Your task to perform on an android device: Open settings on Google Maps Image 0: 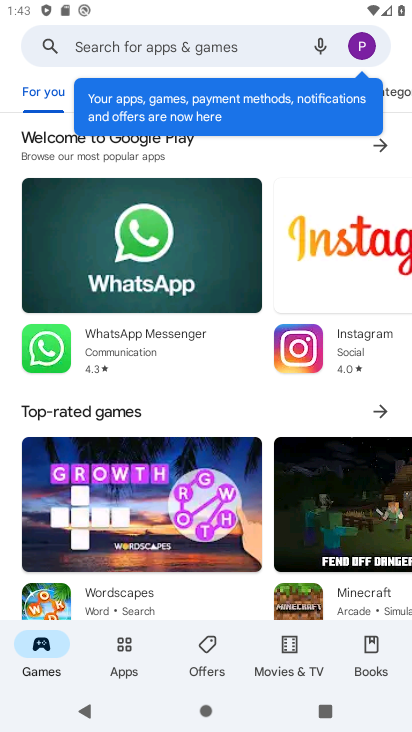
Step 0: press home button
Your task to perform on an android device: Open settings on Google Maps Image 1: 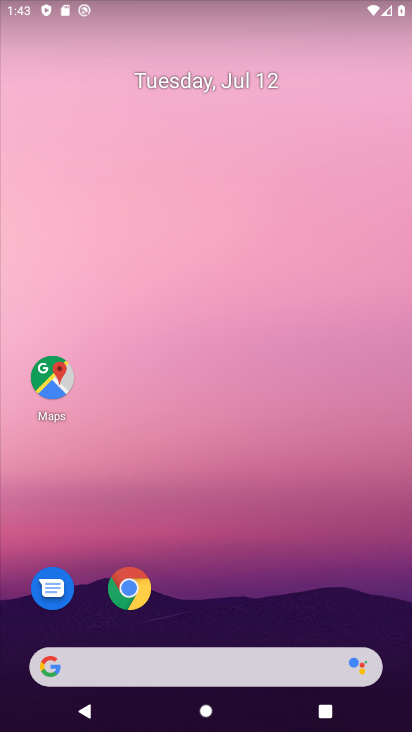
Step 1: click (57, 367)
Your task to perform on an android device: Open settings on Google Maps Image 2: 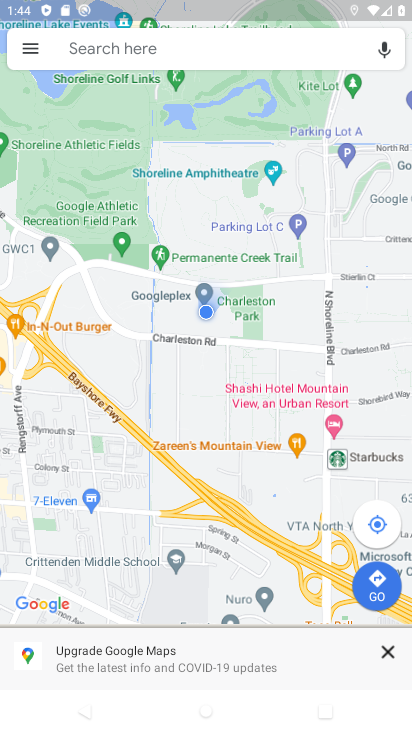
Step 2: task complete